Your task to perform on an android device: View the shopping cart on target. Search for "asus zenbook" on target, select the first entry, and add it to the cart. Image 0: 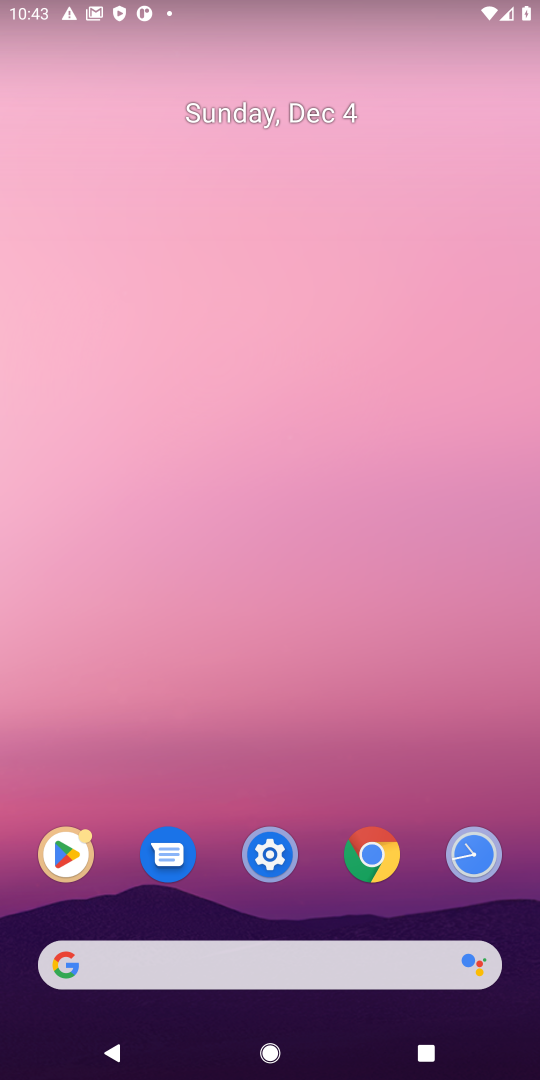
Step 0: click (288, 959)
Your task to perform on an android device: View the shopping cart on target. Search for "asus zenbook" on target, select the first entry, and add it to the cart. Image 1: 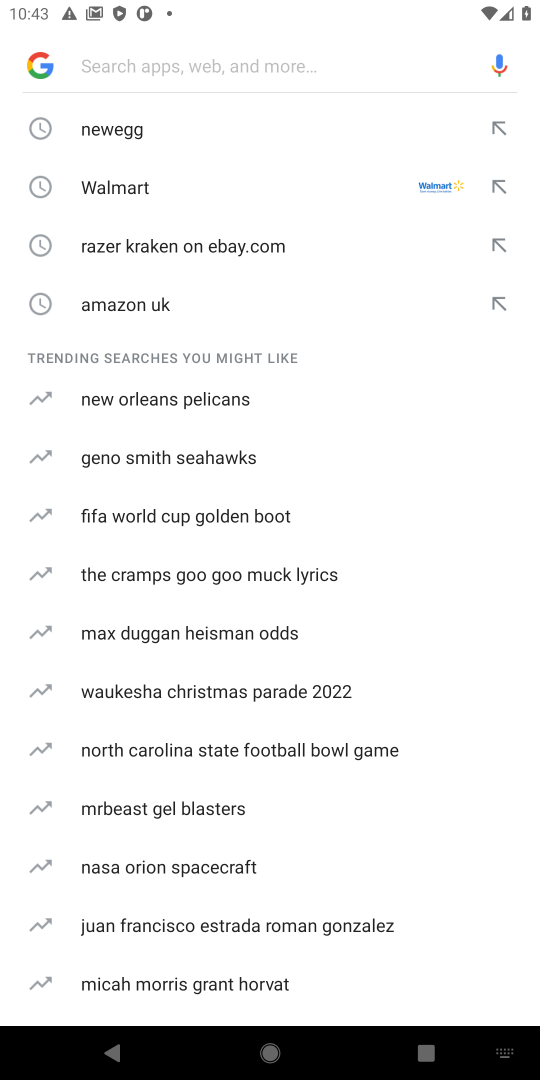
Step 1: click (112, 120)
Your task to perform on an android device: View the shopping cart on target. Search for "asus zenbook" on target, select the first entry, and add it to the cart. Image 2: 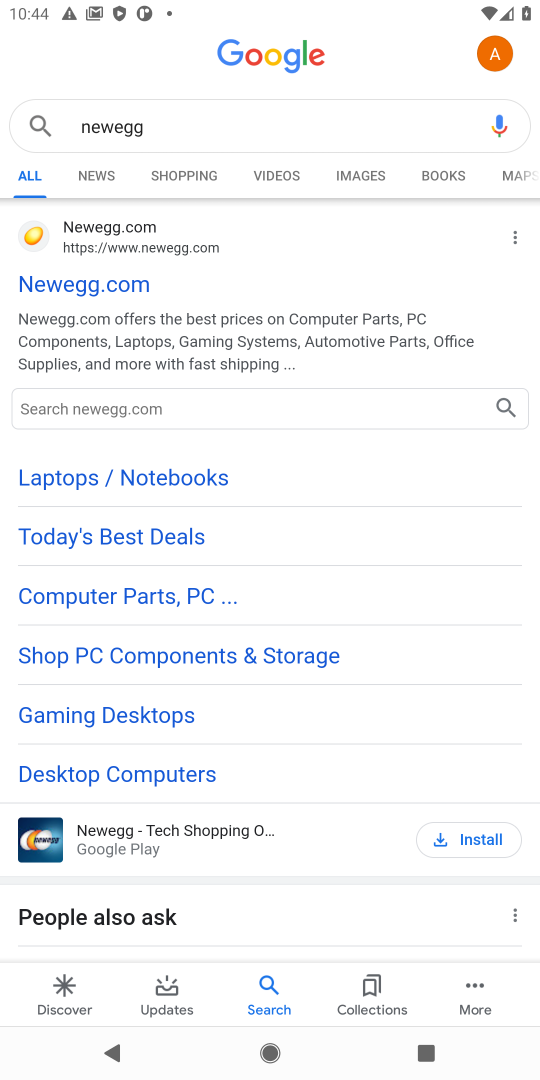
Step 2: click (132, 274)
Your task to perform on an android device: View the shopping cart on target. Search for "asus zenbook" on target, select the first entry, and add it to the cart. Image 3: 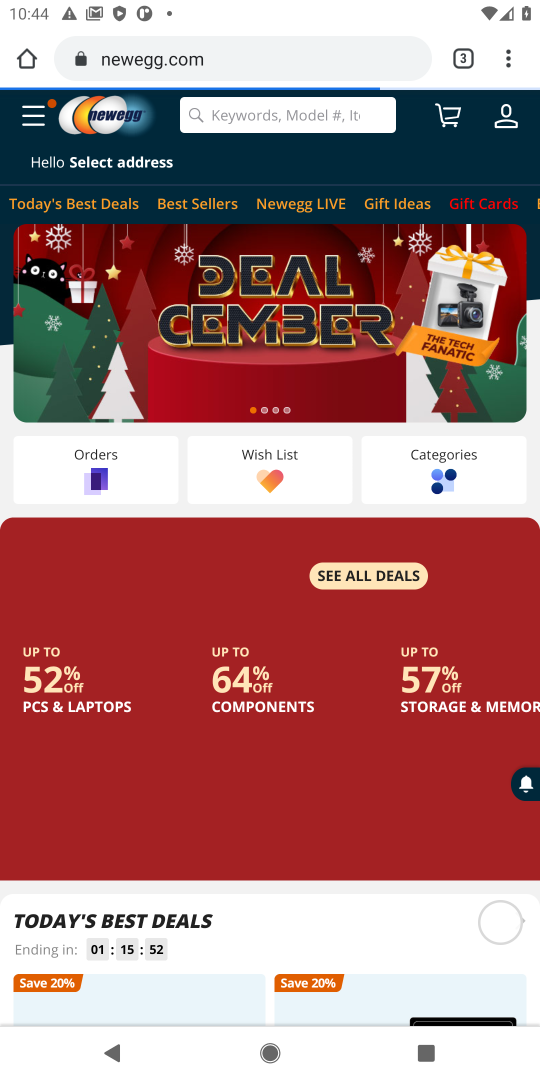
Step 3: task complete